Your task to perform on an android device: show emergency info Image 0: 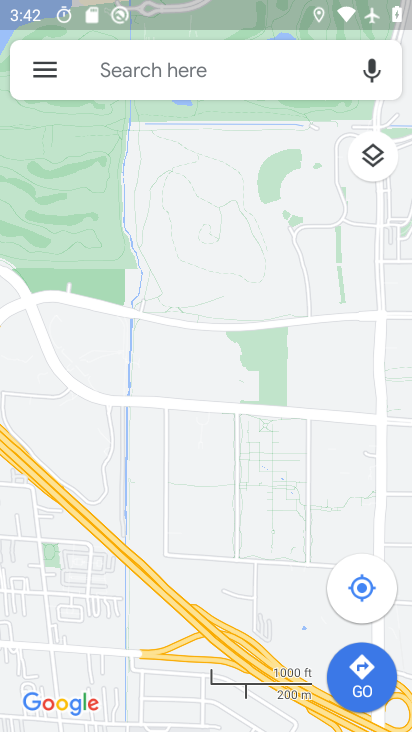
Step 0: press back button
Your task to perform on an android device: show emergency info Image 1: 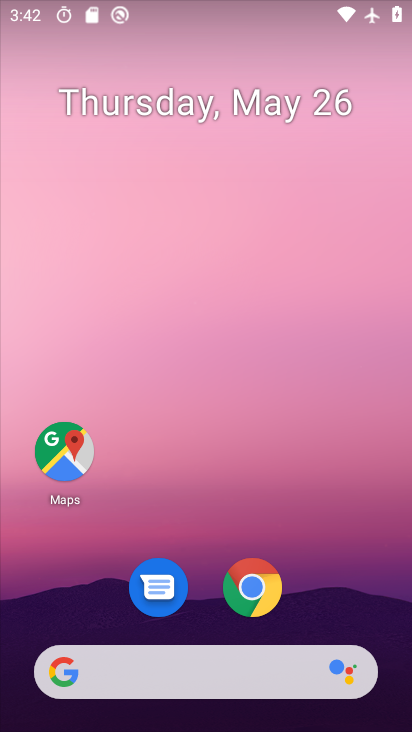
Step 1: drag from (266, 718) to (120, 69)
Your task to perform on an android device: show emergency info Image 2: 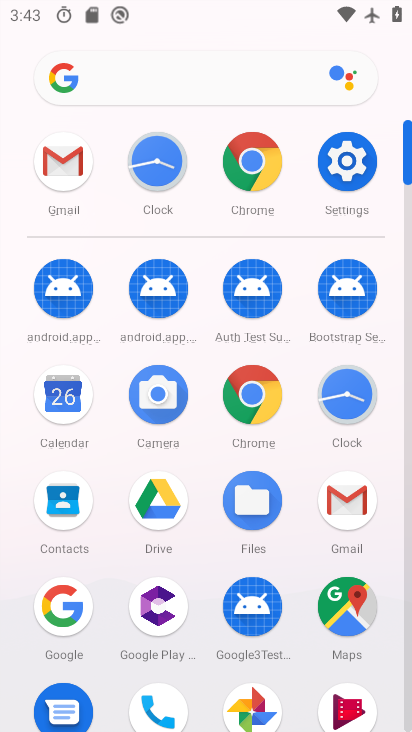
Step 2: click (354, 164)
Your task to perform on an android device: show emergency info Image 3: 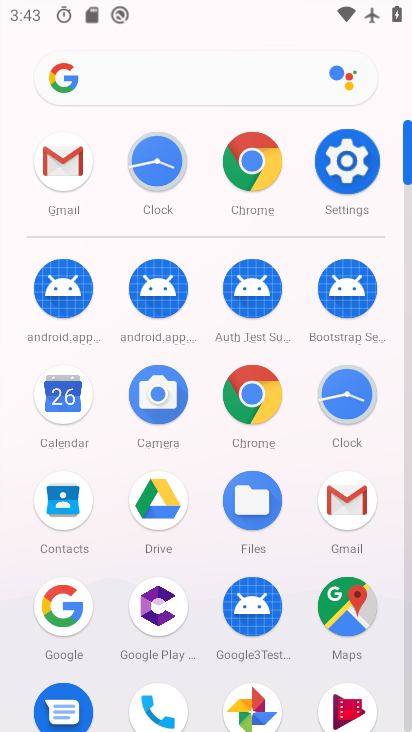
Step 3: click (352, 165)
Your task to perform on an android device: show emergency info Image 4: 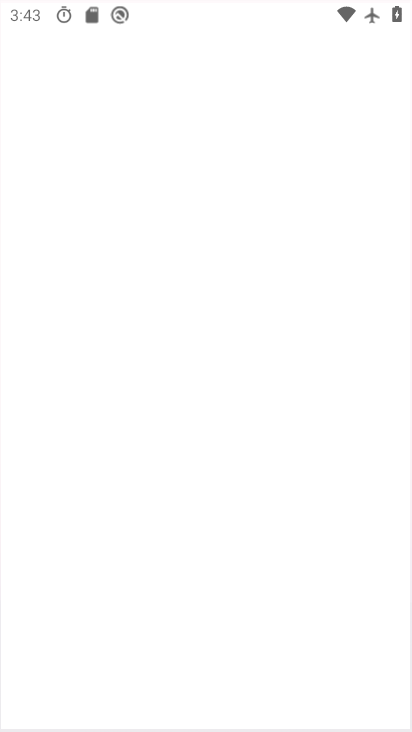
Step 4: click (352, 165)
Your task to perform on an android device: show emergency info Image 5: 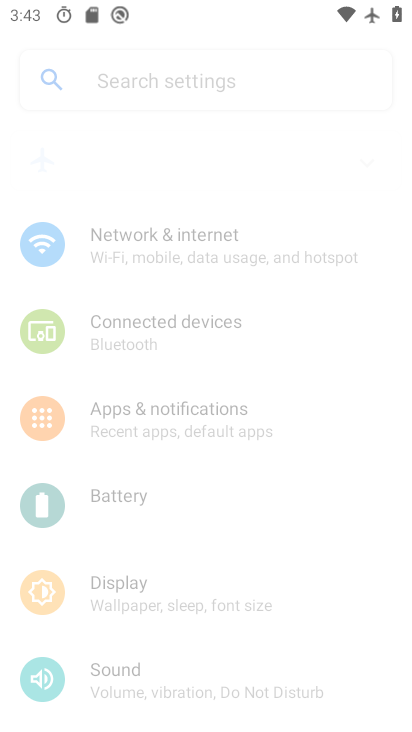
Step 5: click (352, 165)
Your task to perform on an android device: show emergency info Image 6: 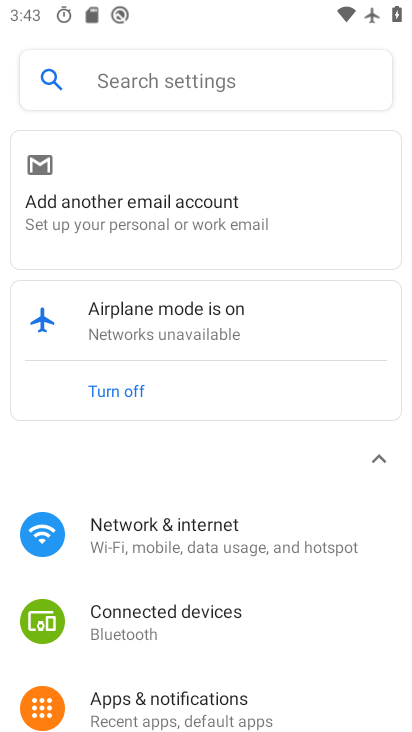
Step 6: drag from (182, 524) to (185, 260)
Your task to perform on an android device: show emergency info Image 7: 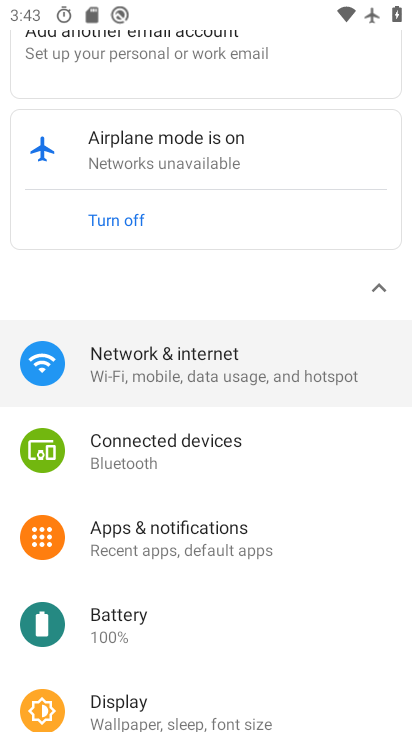
Step 7: drag from (210, 459) to (206, 166)
Your task to perform on an android device: show emergency info Image 8: 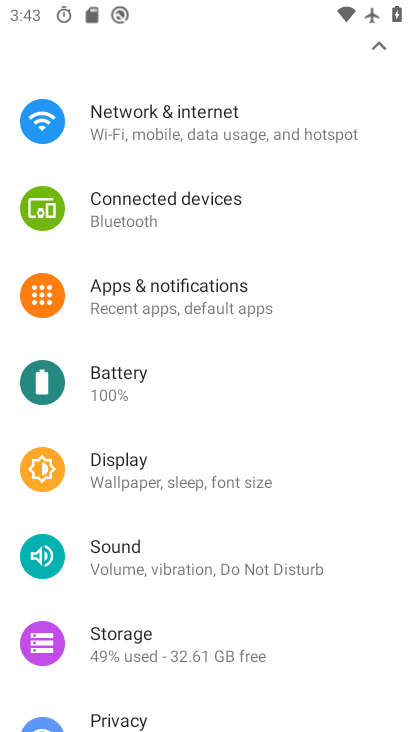
Step 8: drag from (154, 532) to (140, 265)
Your task to perform on an android device: show emergency info Image 9: 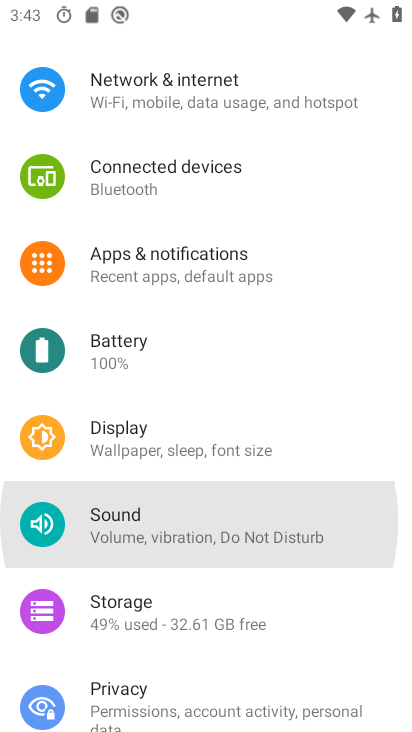
Step 9: drag from (150, 384) to (150, 68)
Your task to perform on an android device: show emergency info Image 10: 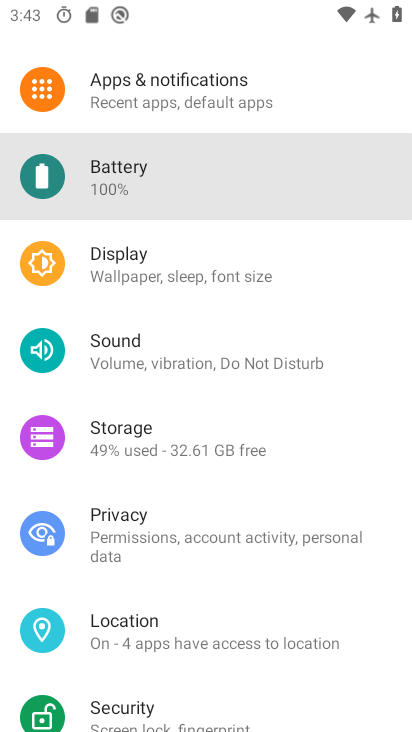
Step 10: drag from (212, 368) to (185, 144)
Your task to perform on an android device: show emergency info Image 11: 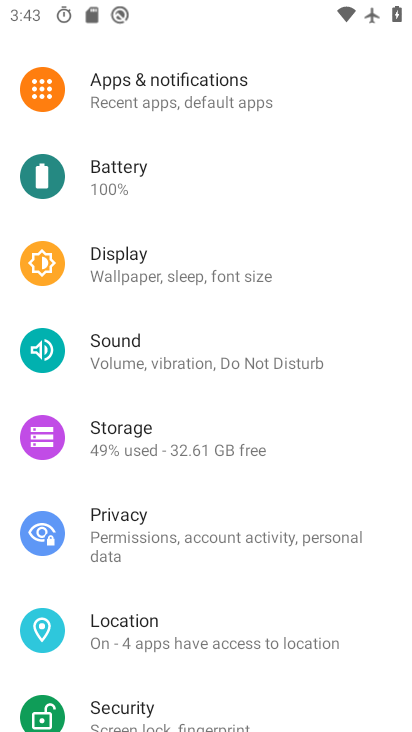
Step 11: drag from (181, 477) to (138, 163)
Your task to perform on an android device: show emergency info Image 12: 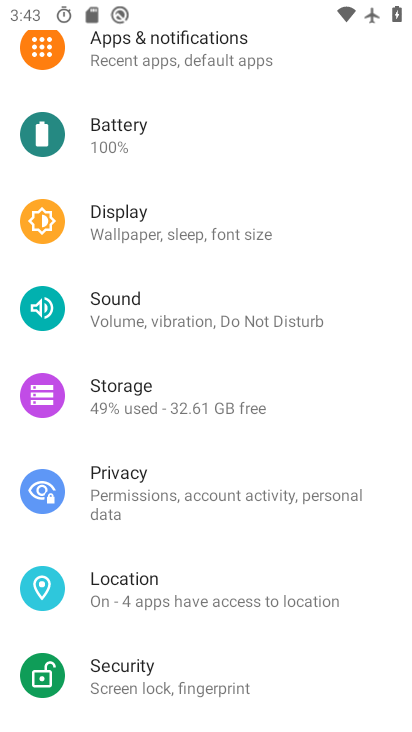
Step 12: drag from (194, 563) to (176, 221)
Your task to perform on an android device: show emergency info Image 13: 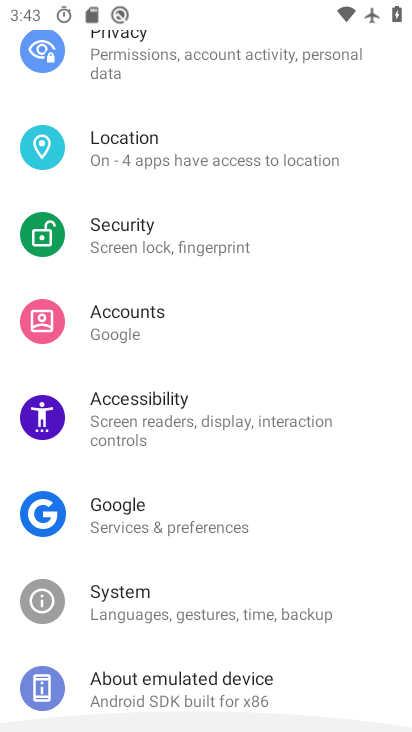
Step 13: drag from (226, 427) to (204, 273)
Your task to perform on an android device: show emergency info Image 14: 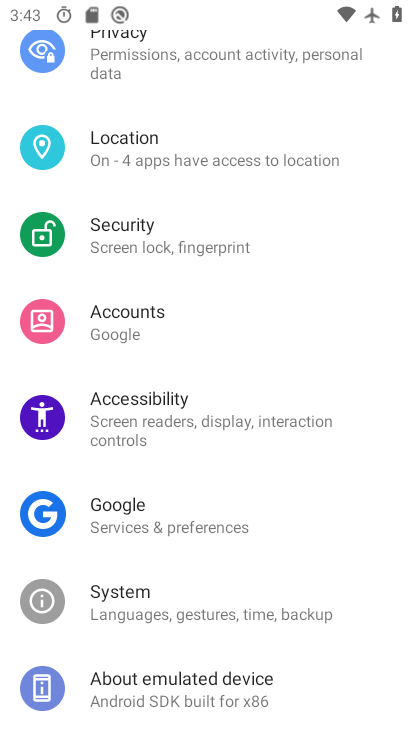
Step 14: drag from (205, 535) to (205, 329)
Your task to perform on an android device: show emergency info Image 15: 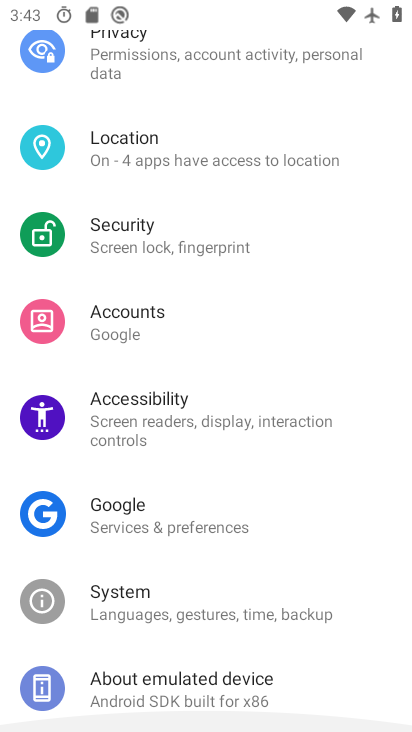
Step 15: drag from (251, 521) to (251, 169)
Your task to perform on an android device: show emergency info Image 16: 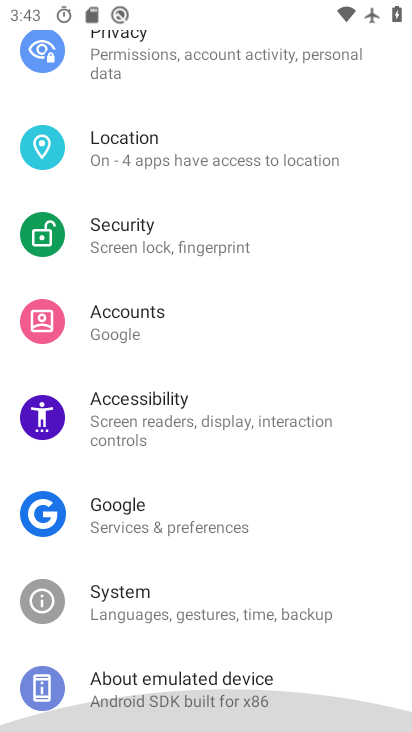
Step 16: drag from (250, 460) to (250, 253)
Your task to perform on an android device: show emergency info Image 17: 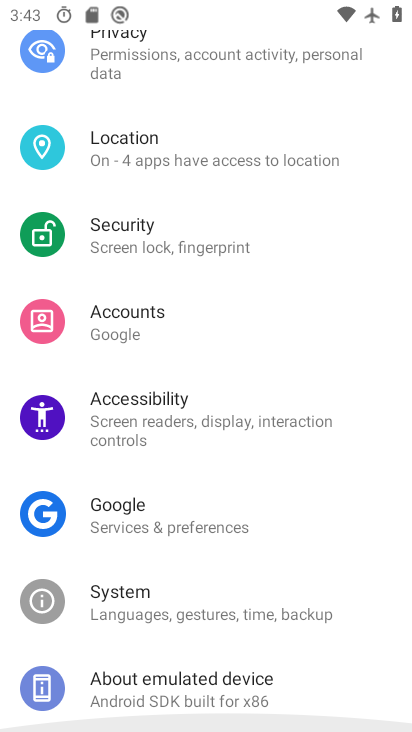
Step 17: drag from (264, 456) to (255, 354)
Your task to perform on an android device: show emergency info Image 18: 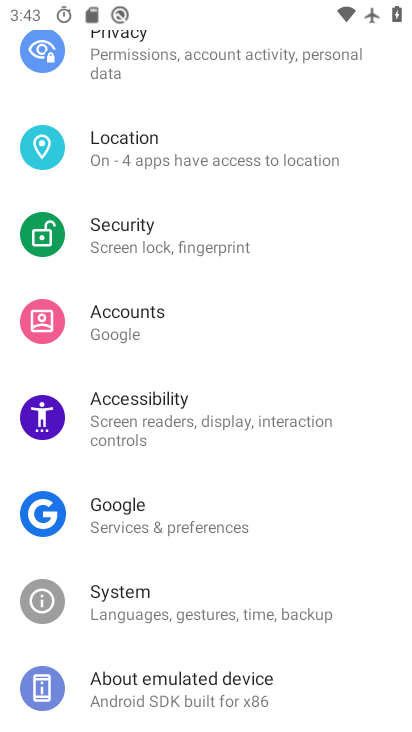
Step 18: drag from (132, 334) to (164, 653)
Your task to perform on an android device: show emergency info Image 19: 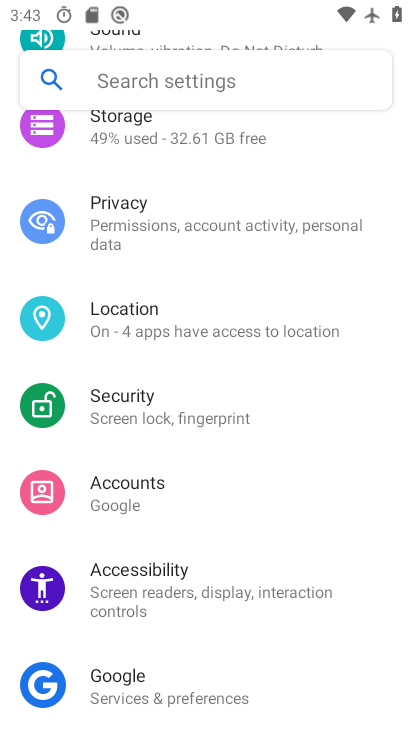
Step 19: drag from (121, 418) to (139, 620)
Your task to perform on an android device: show emergency info Image 20: 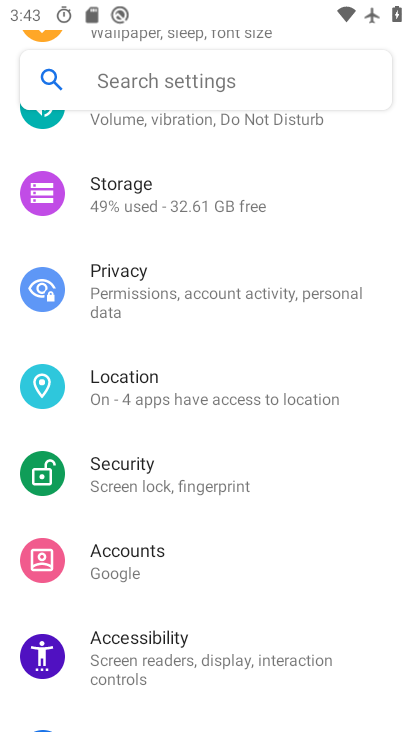
Step 20: drag from (156, 587) to (156, 277)
Your task to perform on an android device: show emergency info Image 21: 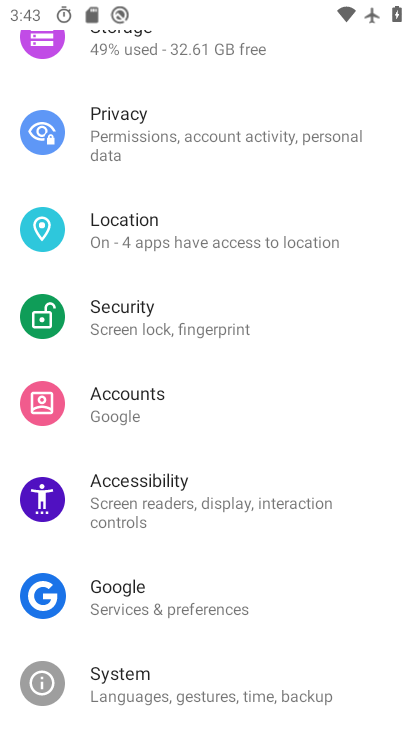
Step 21: drag from (160, 433) to (162, 174)
Your task to perform on an android device: show emergency info Image 22: 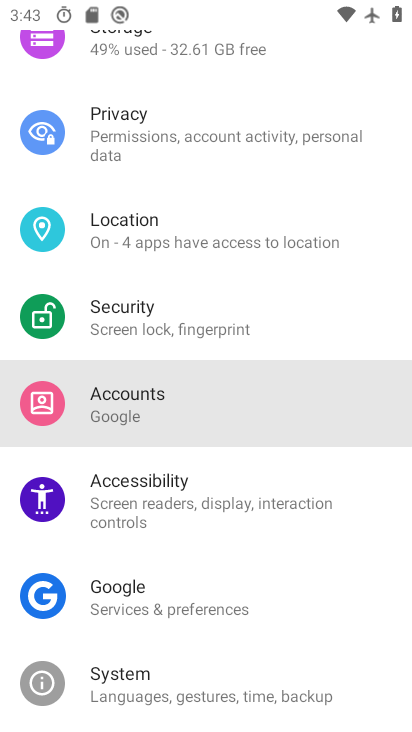
Step 22: drag from (172, 444) to (172, 323)
Your task to perform on an android device: show emergency info Image 23: 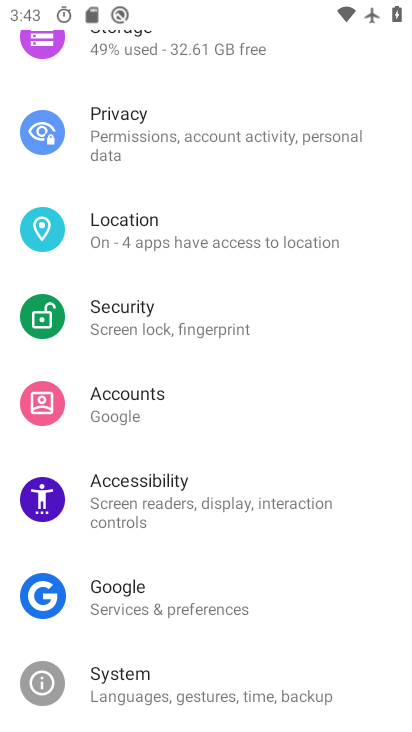
Step 23: drag from (172, 613) to (190, 371)
Your task to perform on an android device: show emergency info Image 24: 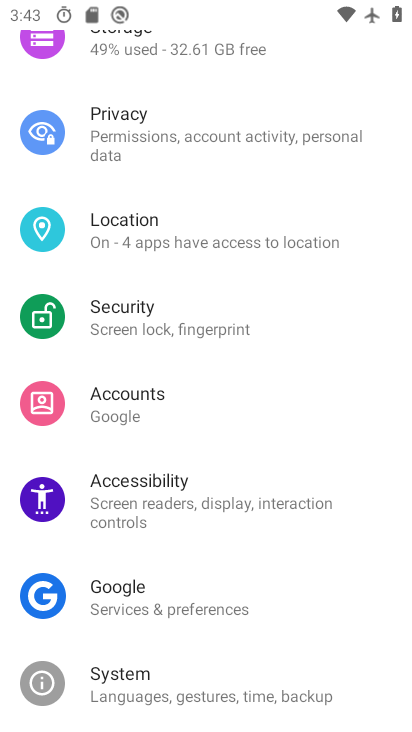
Step 24: drag from (190, 457) to (203, 315)
Your task to perform on an android device: show emergency info Image 25: 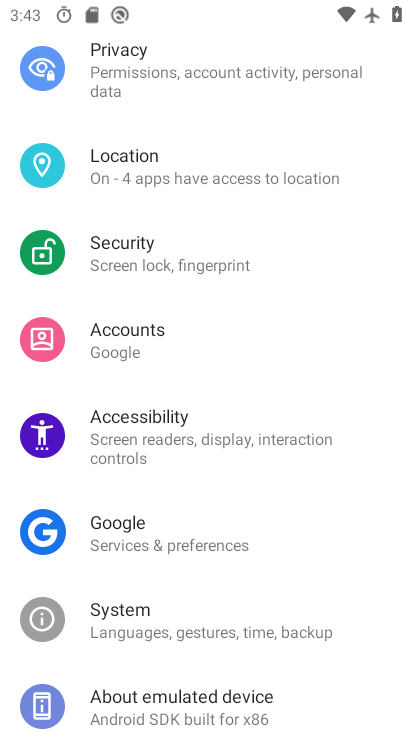
Step 25: drag from (166, 549) to (165, 332)
Your task to perform on an android device: show emergency info Image 26: 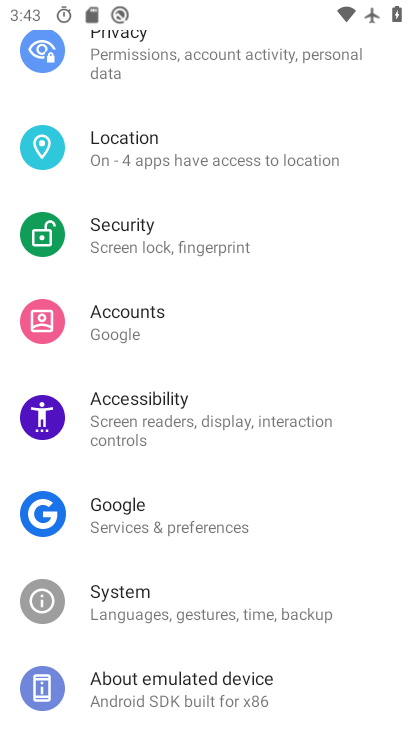
Step 26: click (174, 695)
Your task to perform on an android device: show emergency info Image 27: 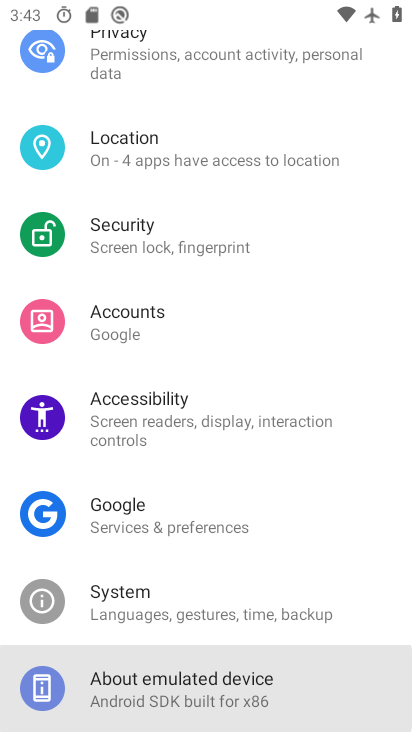
Step 27: click (184, 687)
Your task to perform on an android device: show emergency info Image 28: 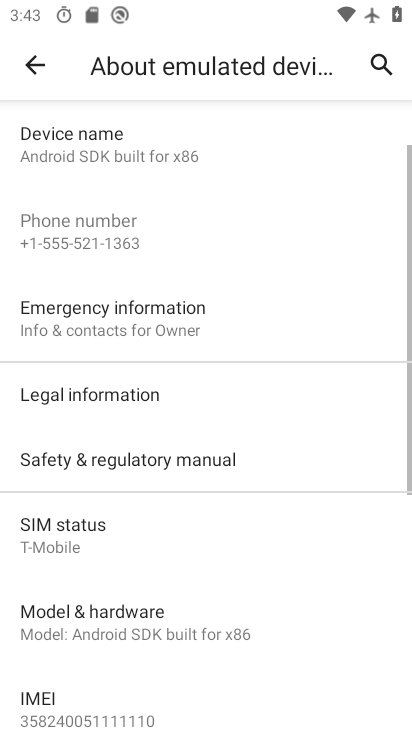
Step 28: task complete